Your task to perform on an android device: Go to Amazon Image 0: 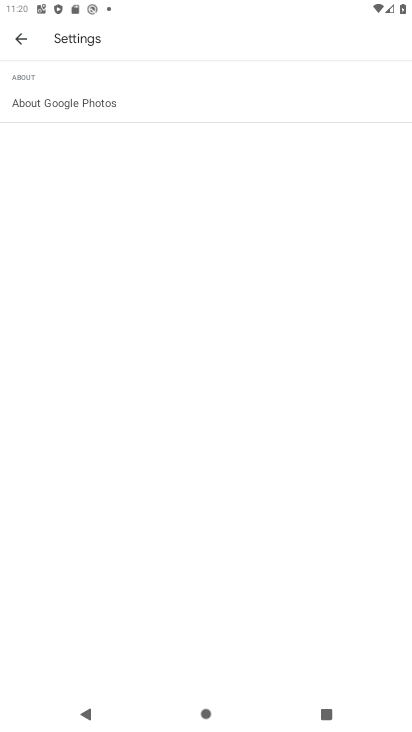
Step 0: drag from (246, 619) to (346, 104)
Your task to perform on an android device: Go to Amazon Image 1: 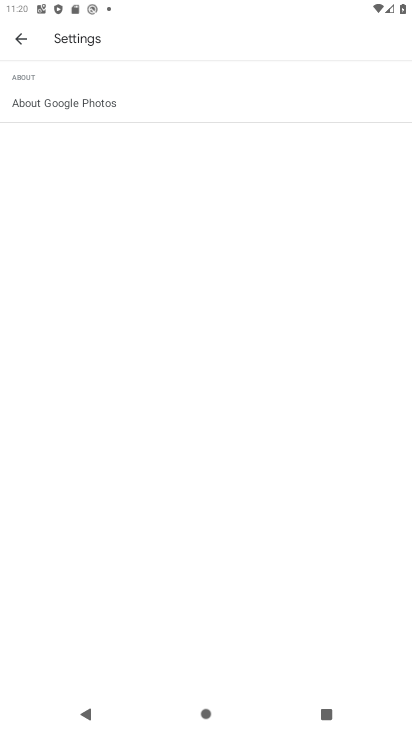
Step 1: press back button
Your task to perform on an android device: Go to Amazon Image 2: 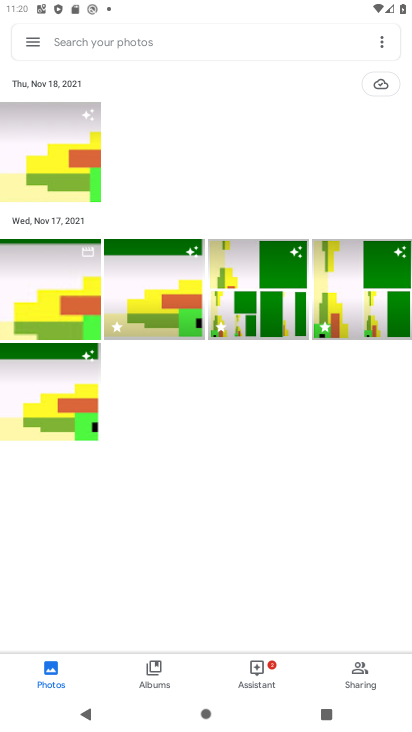
Step 2: press back button
Your task to perform on an android device: Go to Amazon Image 3: 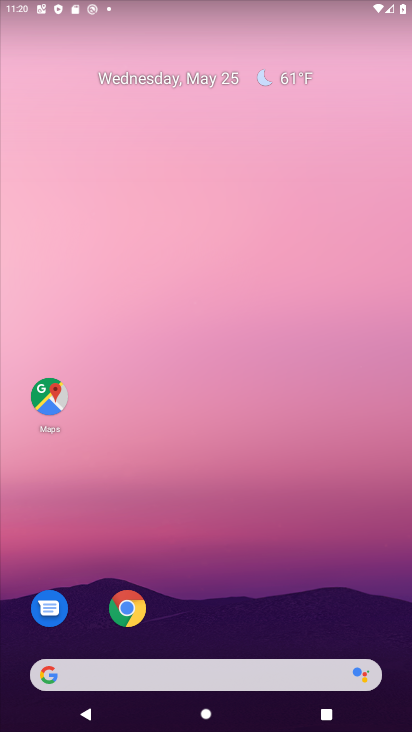
Step 3: click (131, 619)
Your task to perform on an android device: Go to Amazon Image 4: 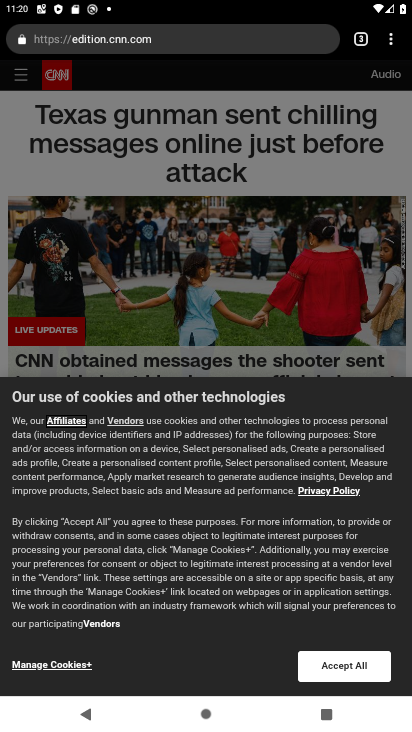
Step 4: click (359, 40)
Your task to perform on an android device: Go to Amazon Image 5: 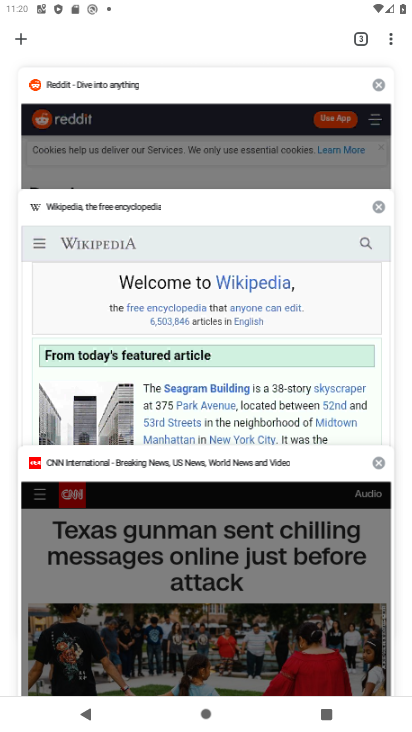
Step 5: click (21, 32)
Your task to perform on an android device: Go to Amazon Image 6: 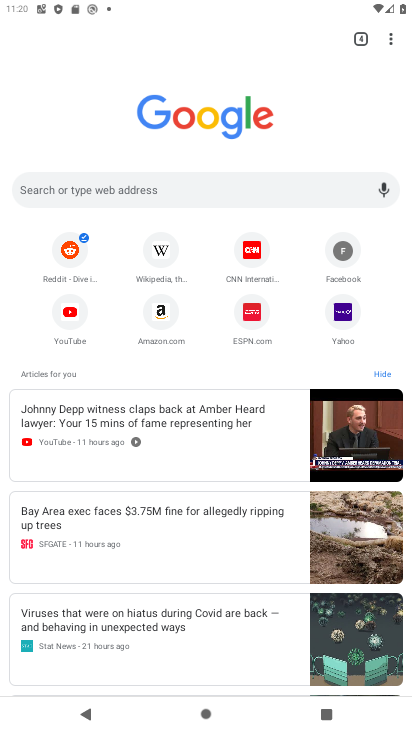
Step 6: click (156, 310)
Your task to perform on an android device: Go to Amazon Image 7: 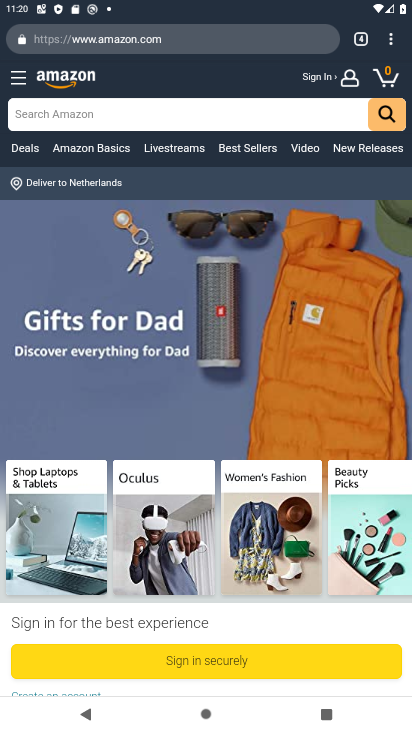
Step 7: task complete